Your task to perform on an android device: turn off translation in the chrome app Image 0: 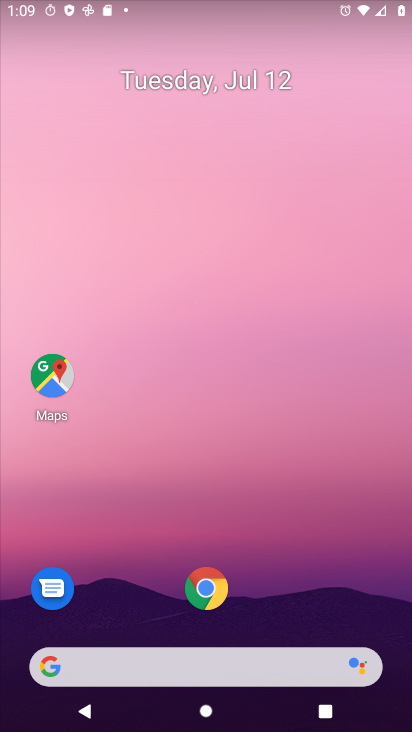
Step 0: click (198, 594)
Your task to perform on an android device: turn off translation in the chrome app Image 1: 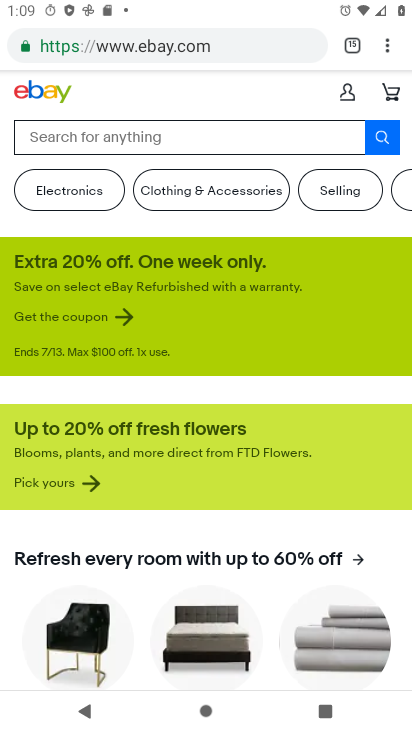
Step 1: drag from (390, 44) to (275, 548)
Your task to perform on an android device: turn off translation in the chrome app Image 2: 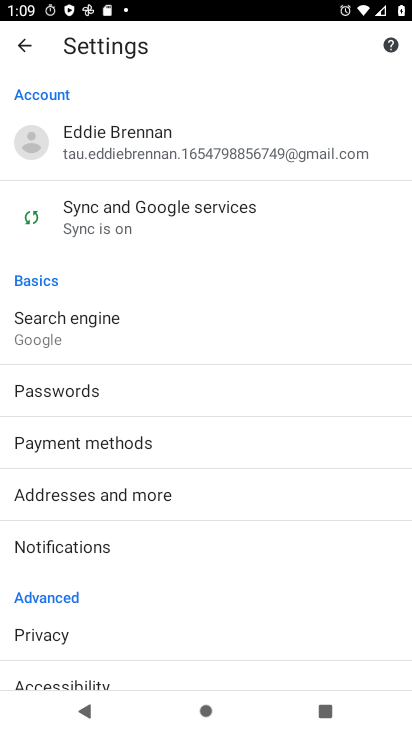
Step 2: drag from (194, 630) to (277, 221)
Your task to perform on an android device: turn off translation in the chrome app Image 3: 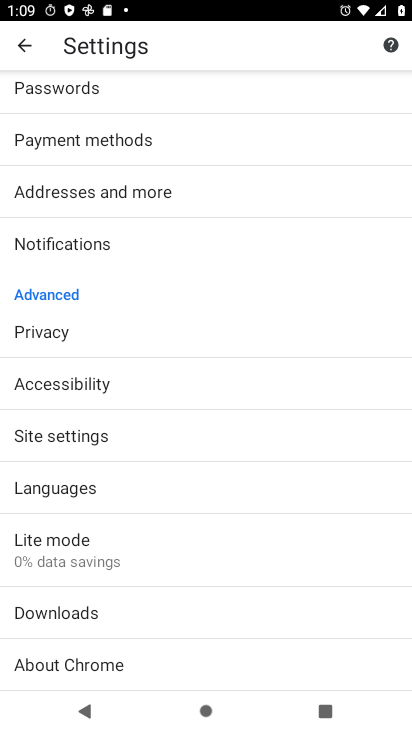
Step 3: click (69, 490)
Your task to perform on an android device: turn off translation in the chrome app Image 4: 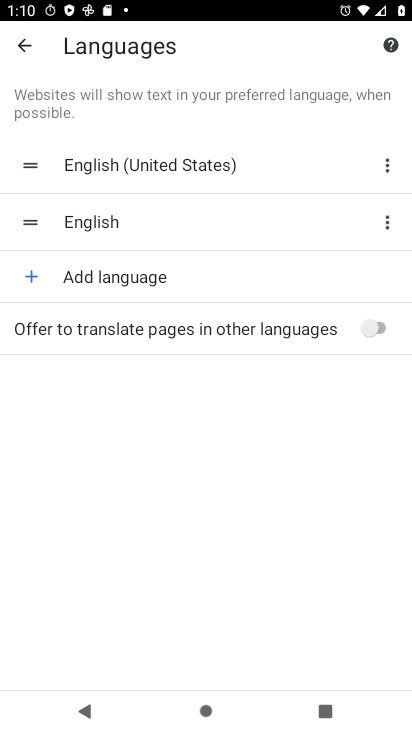
Step 4: task complete